Your task to perform on an android device: add a label to a message in the gmail app Image 0: 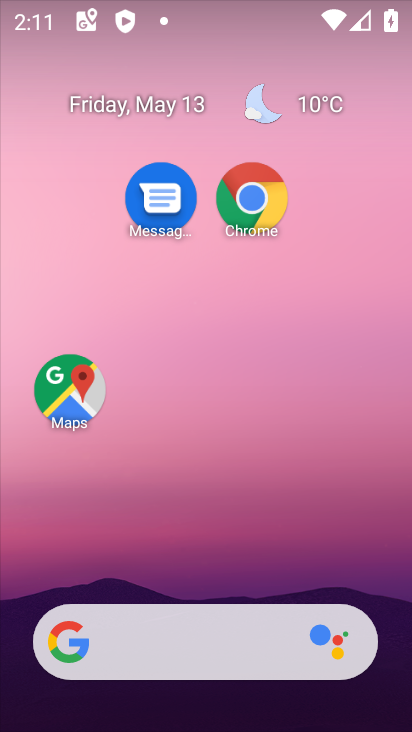
Step 0: drag from (230, 594) to (181, 63)
Your task to perform on an android device: add a label to a message in the gmail app Image 1: 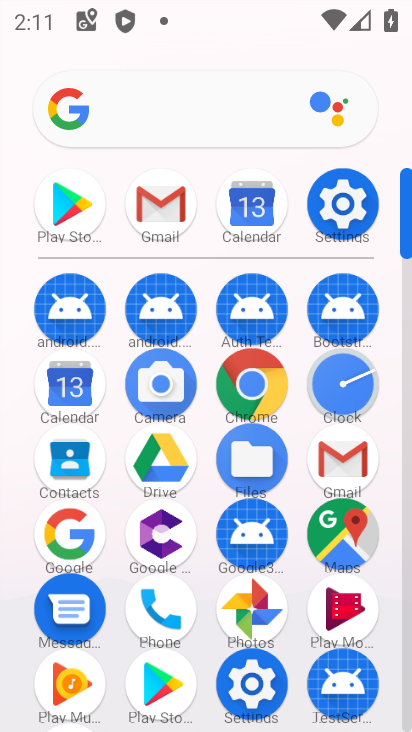
Step 1: click (326, 459)
Your task to perform on an android device: add a label to a message in the gmail app Image 2: 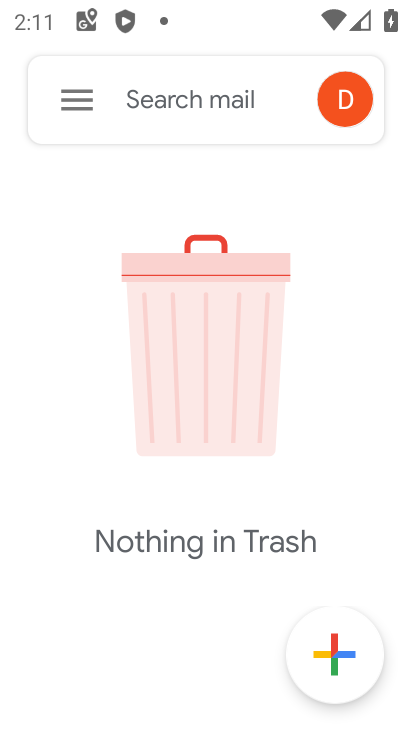
Step 2: click (91, 104)
Your task to perform on an android device: add a label to a message in the gmail app Image 3: 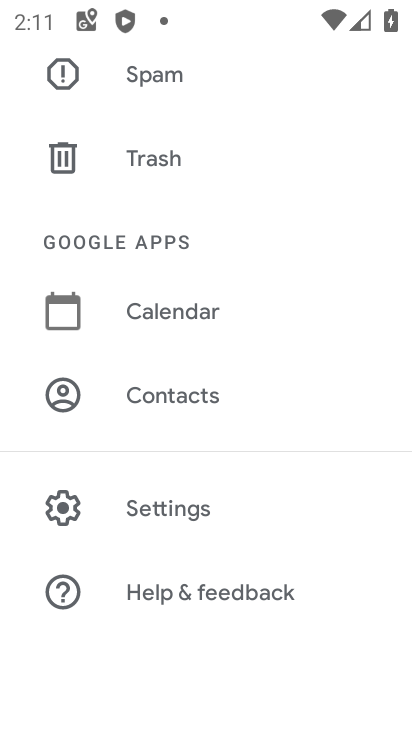
Step 3: drag from (123, 142) to (82, 728)
Your task to perform on an android device: add a label to a message in the gmail app Image 4: 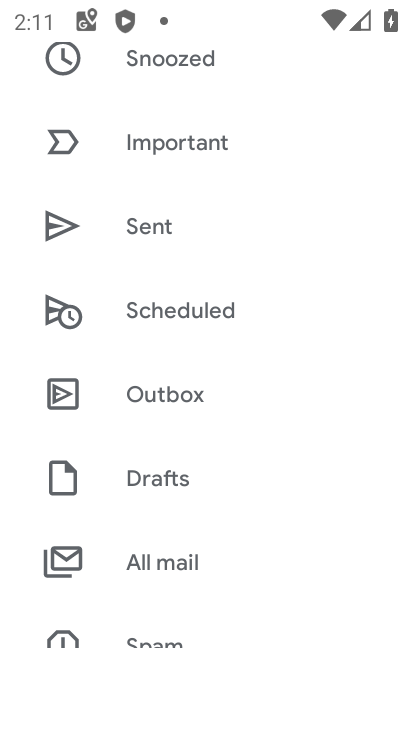
Step 4: drag from (130, 163) to (98, 724)
Your task to perform on an android device: add a label to a message in the gmail app Image 5: 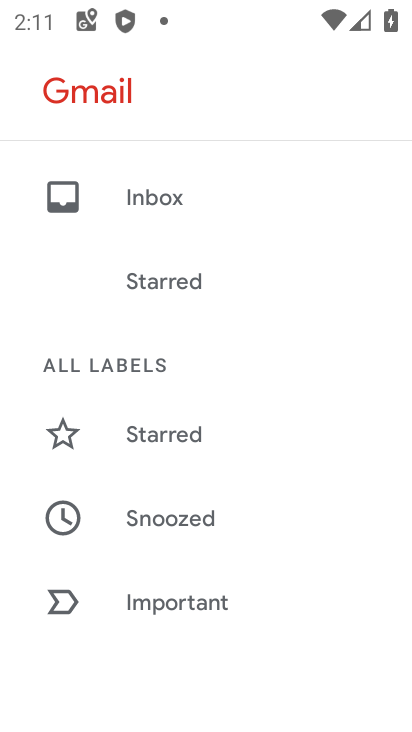
Step 5: click (143, 212)
Your task to perform on an android device: add a label to a message in the gmail app Image 6: 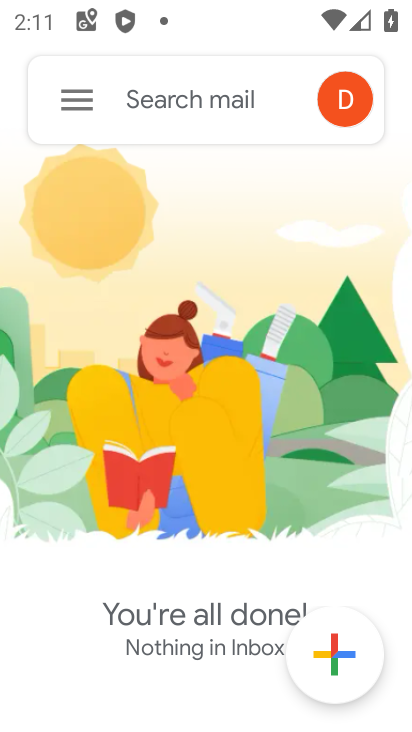
Step 6: task complete